Your task to perform on an android device: turn off data saver in the chrome app Image 0: 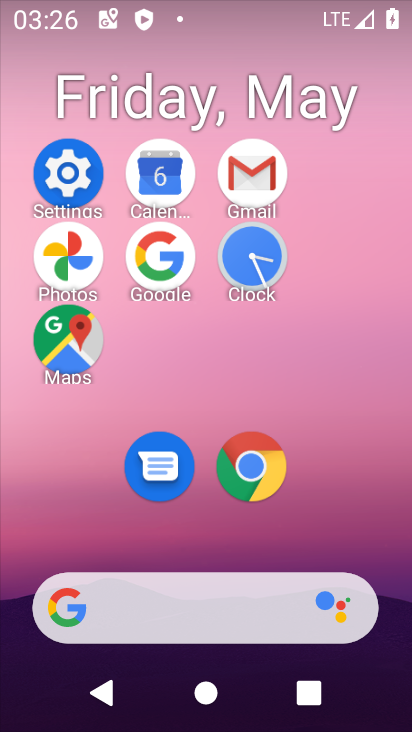
Step 0: click (254, 472)
Your task to perform on an android device: turn off data saver in the chrome app Image 1: 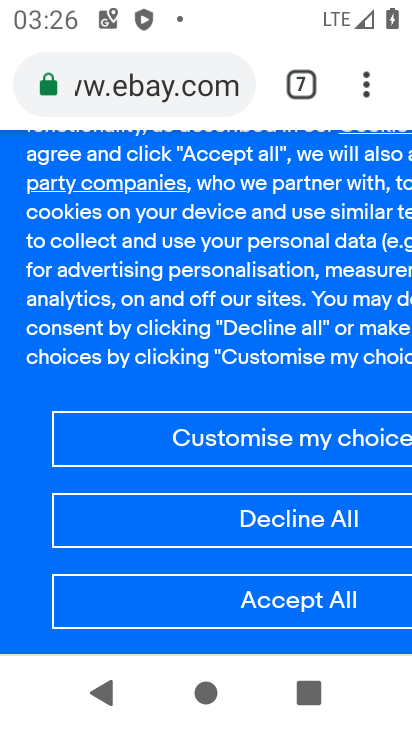
Step 1: click (367, 100)
Your task to perform on an android device: turn off data saver in the chrome app Image 2: 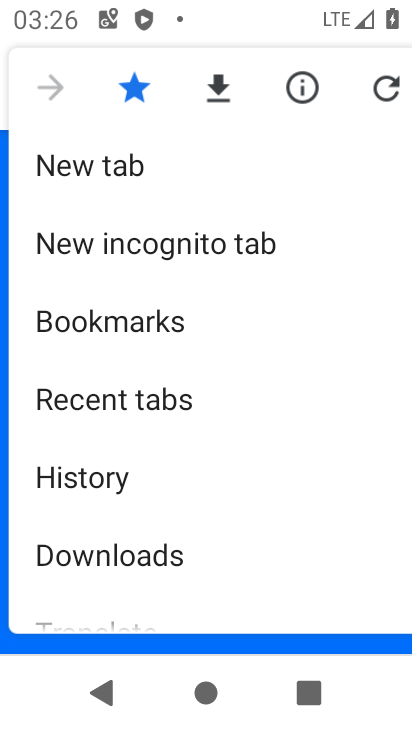
Step 2: click (208, 92)
Your task to perform on an android device: turn off data saver in the chrome app Image 3: 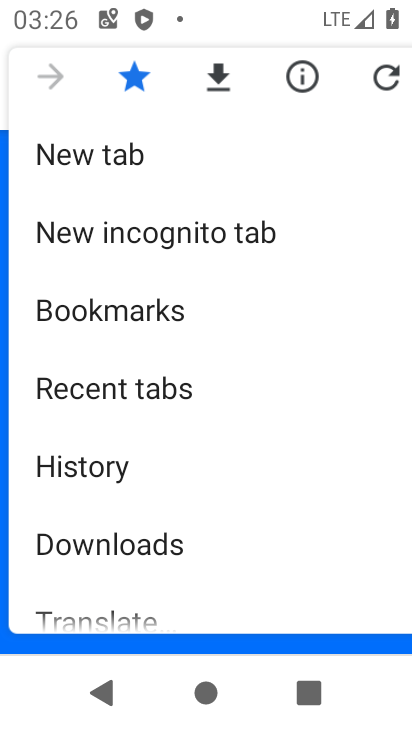
Step 3: drag from (224, 509) to (245, 198)
Your task to perform on an android device: turn off data saver in the chrome app Image 4: 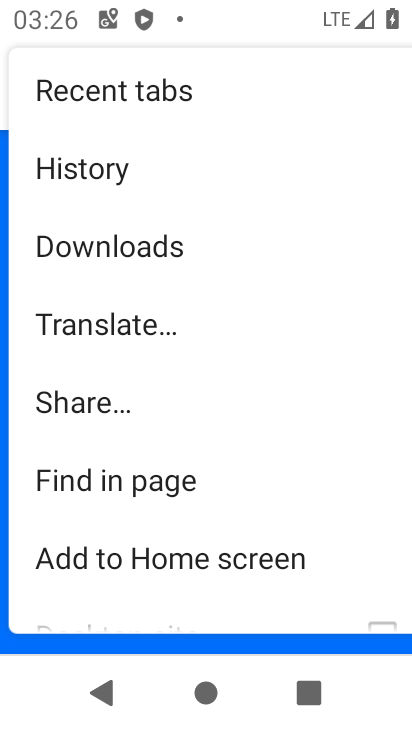
Step 4: drag from (199, 437) to (238, 104)
Your task to perform on an android device: turn off data saver in the chrome app Image 5: 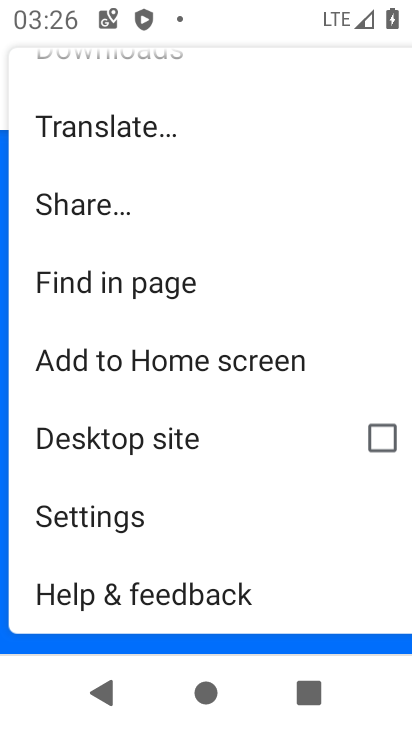
Step 5: click (162, 523)
Your task to perform on an android device: turn off data saver in the chrome app Image 6: 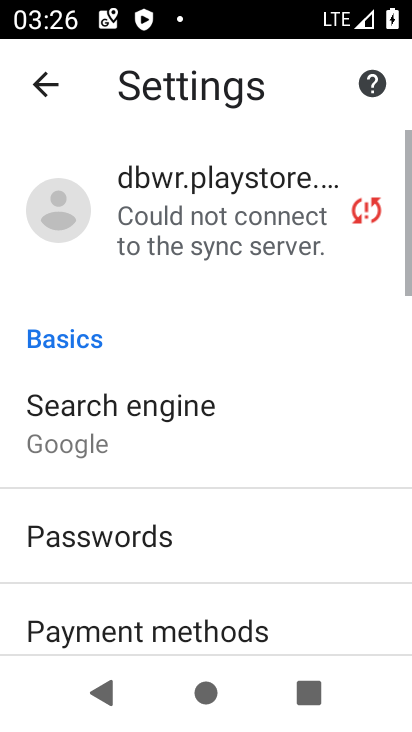
Step 6: drag from (157, 472) to (211, 109)
Your task to perform on an android device: turn off data saver in the chrome app Image 7: 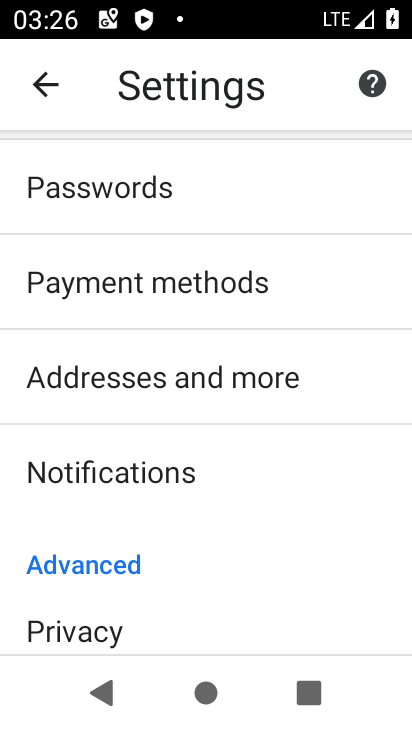
Step 7: drag from (195, 558) to (232, 201)
Your task to perform on an android device: turn off data saver in the chrome app Image 8: 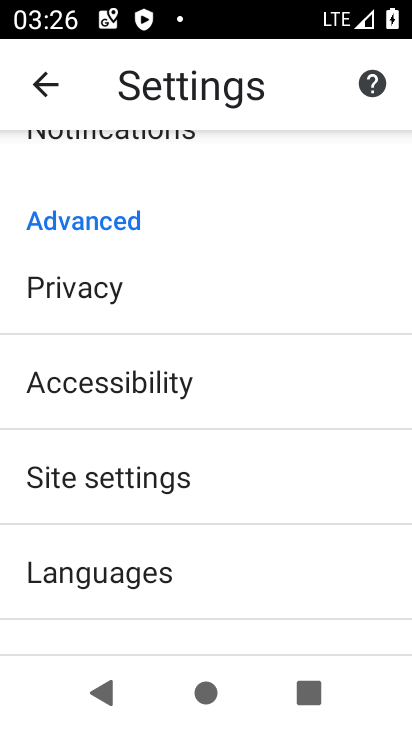
Step 8: drag from (229, 535) to (260, 241)
Your task to perform on an android device: turn off data saver in the chrome app Image 9: 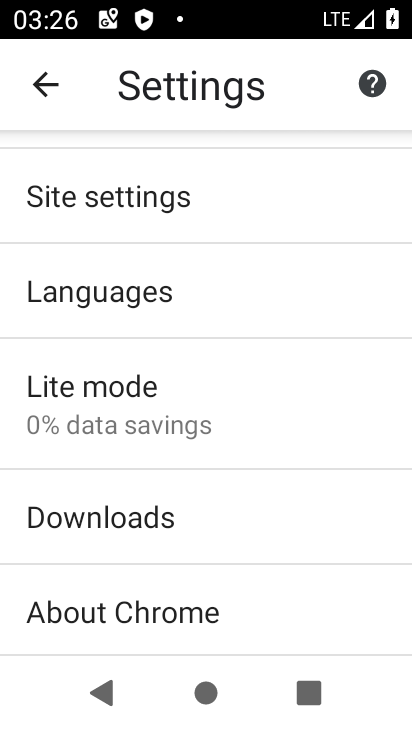
Step 9: click (255, 394)
Your task to perform on an android device: turn off data saver in the chrome app Image 10: 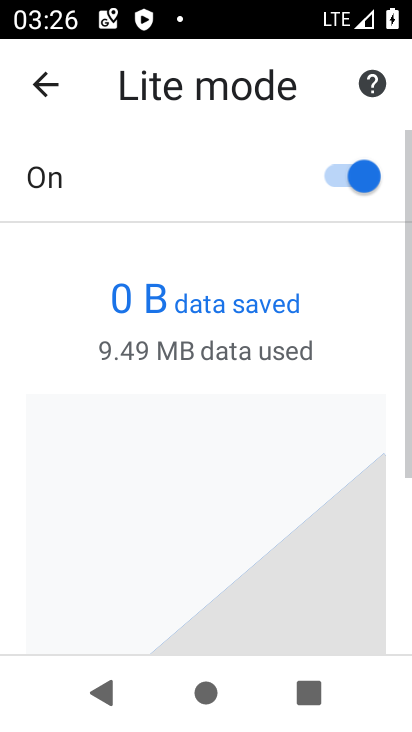
Step 10: click (365, 178)
Your task to perform on an android device: turn off data saver in the chrome app Image 11: 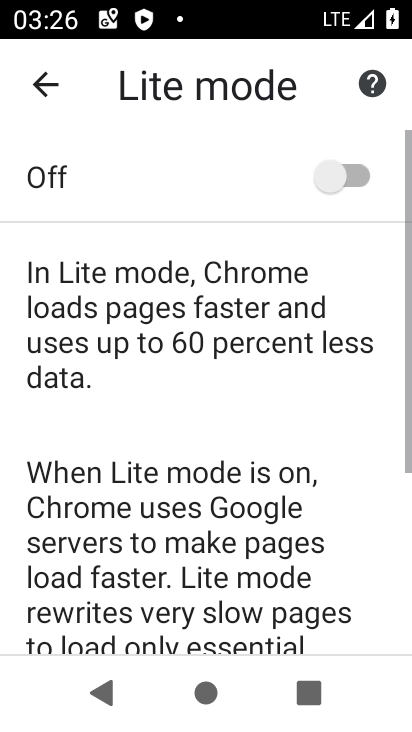
Step 11: task complete